Your task to perform on an android device: What is the speed of a skateboard? Image 0: 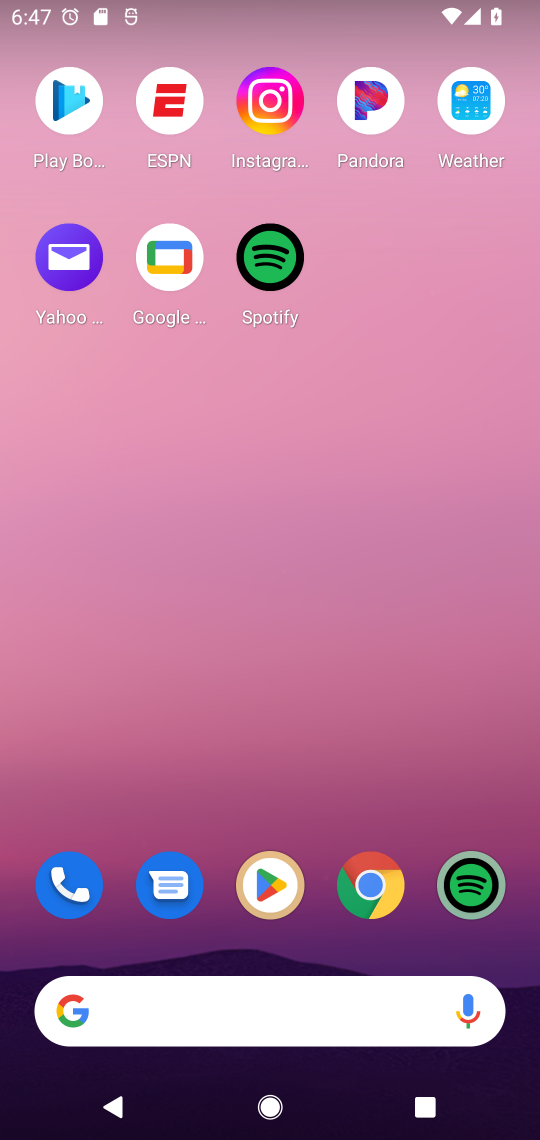
Step 0: click (368, 889)
Your task to perform on an android device: What is the speed of a skateboard? Image 1: 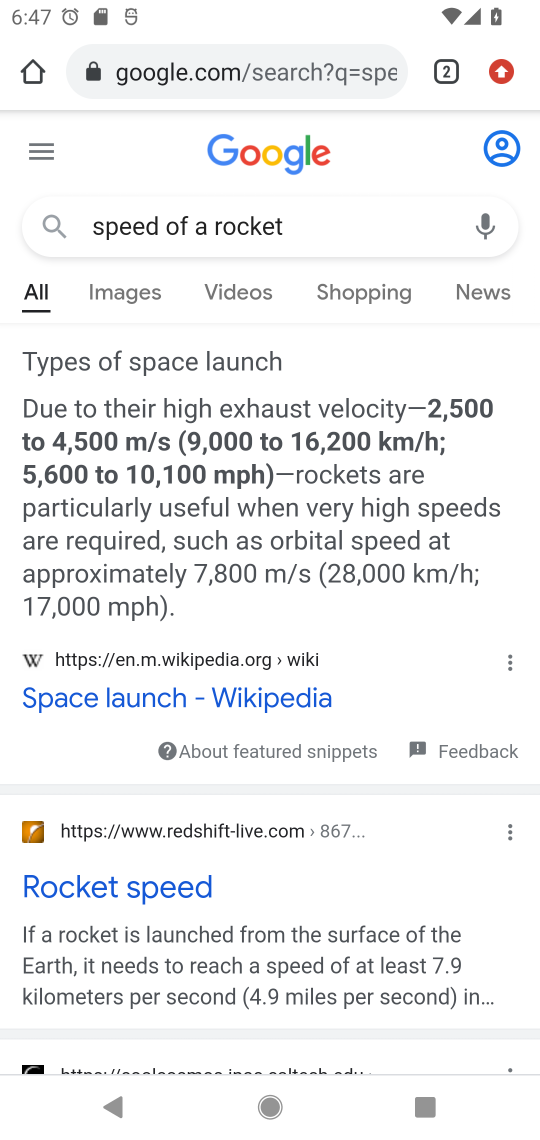
Step 1: click (227, 67)
Your task to perform on an android device: What is the speed of a skateboard? Image 2: 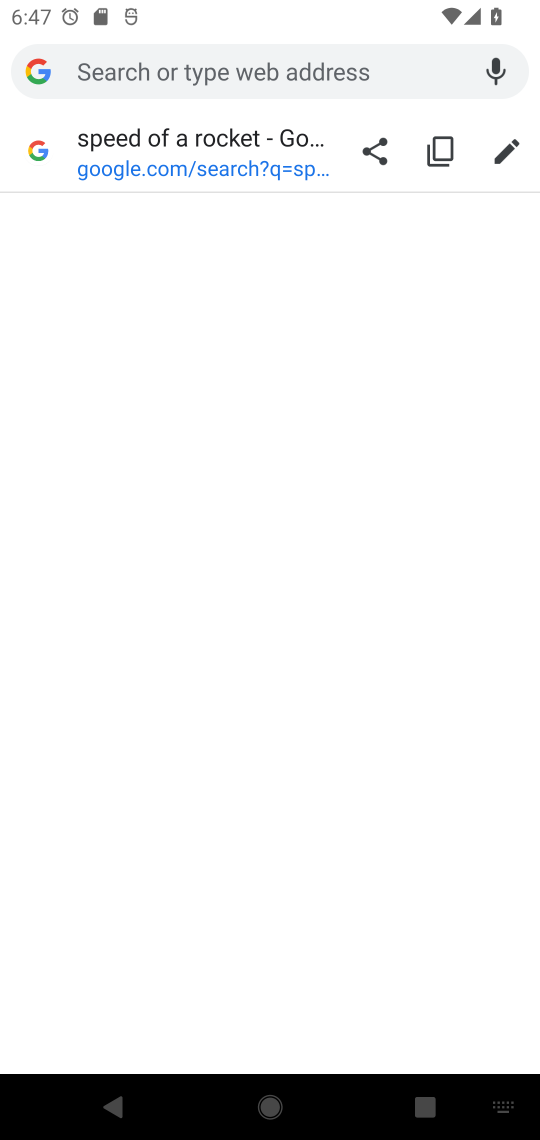
Step 2: type "speed of a skateboard"
Your task to perform on an android device: What is the speed of a skateboard? Image 3: 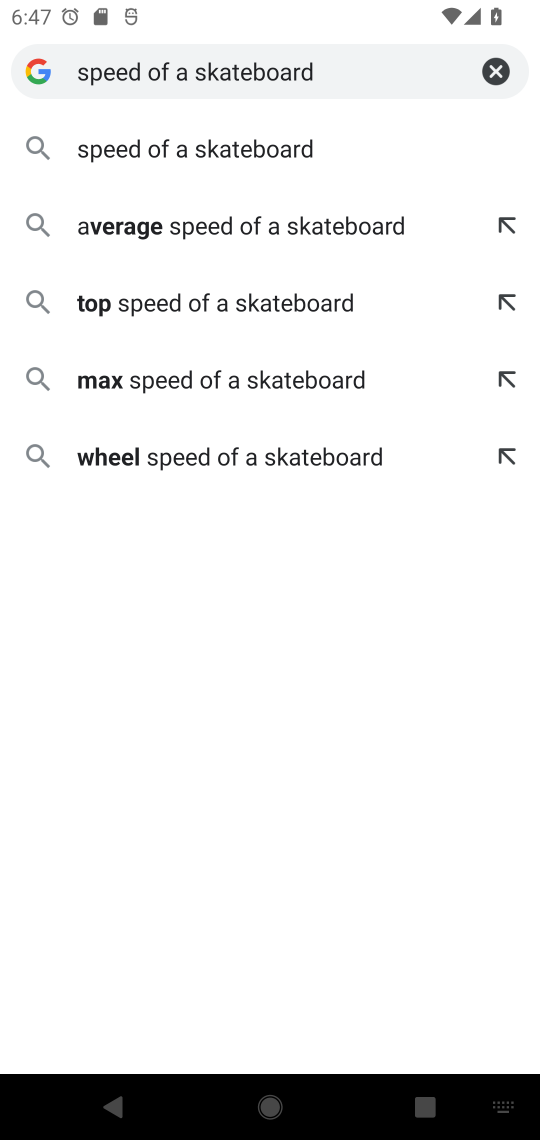
Step 3: click (202, 145)
Your task to perform on an android device: What is the speed of a skateboard? Image 4: 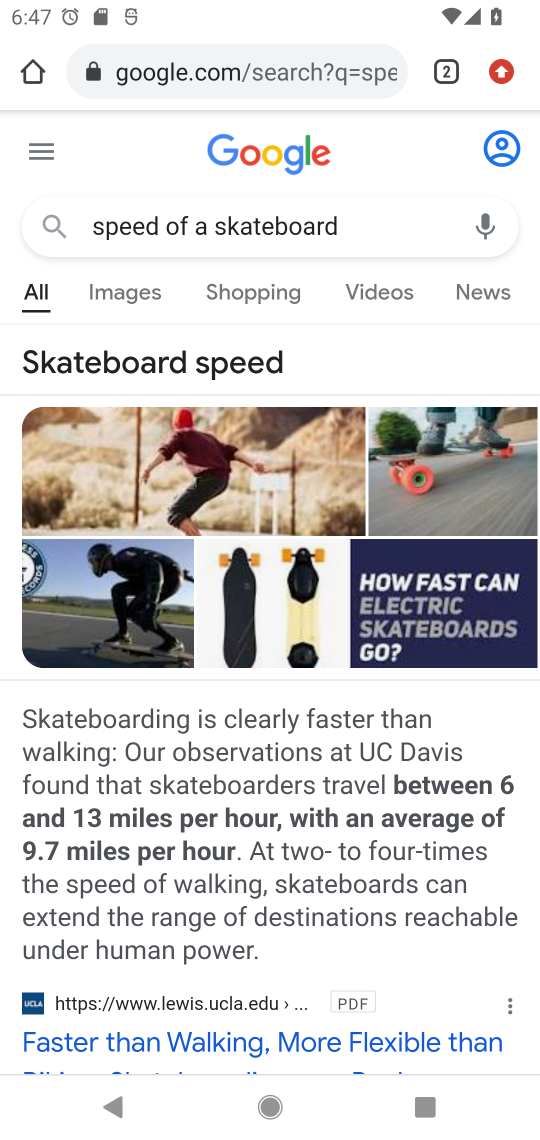
Step 4: task complete